Your task to perform on an android device: change the clock style Image 0: 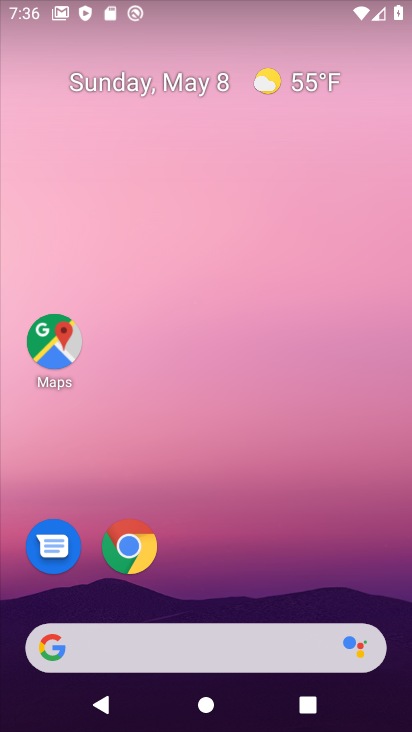
Step 0: drag from (263, 537) to (266, 35)
Your task to perform on an android device: change the clock style Image 1: 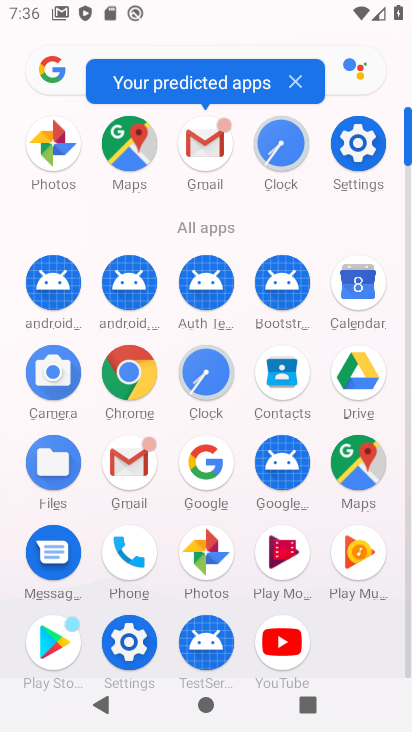
Step 1: click (277, 137)
Your task to perform on an android device: change the clock style Image 2: 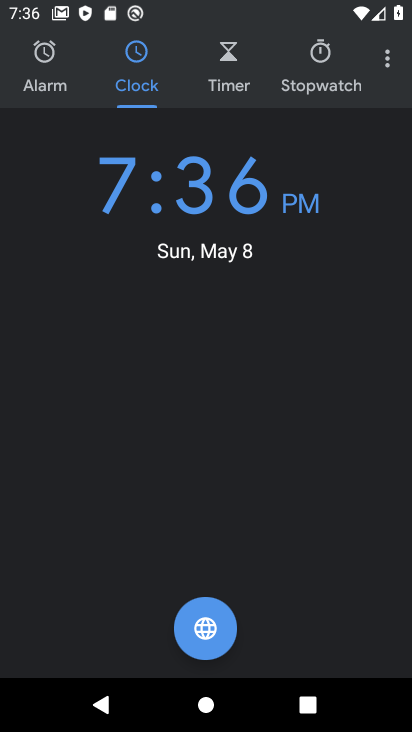
Step 2: click (385, 50)
Your task to perform on an android device: change the clock style Image 3: 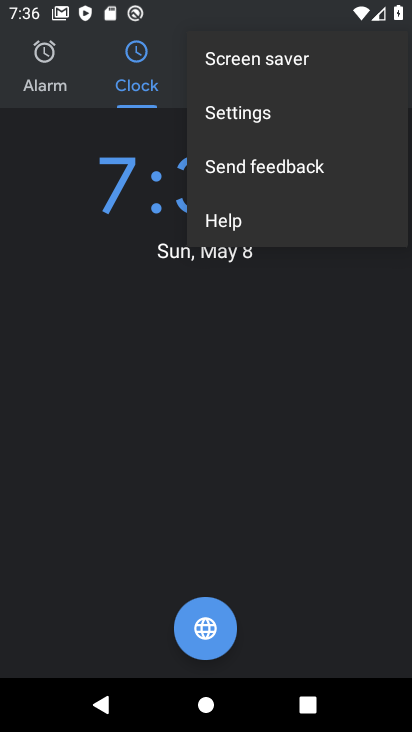
Step 3: click (318, 115)
Your task to perform on an android device: change the clock style Image 4: 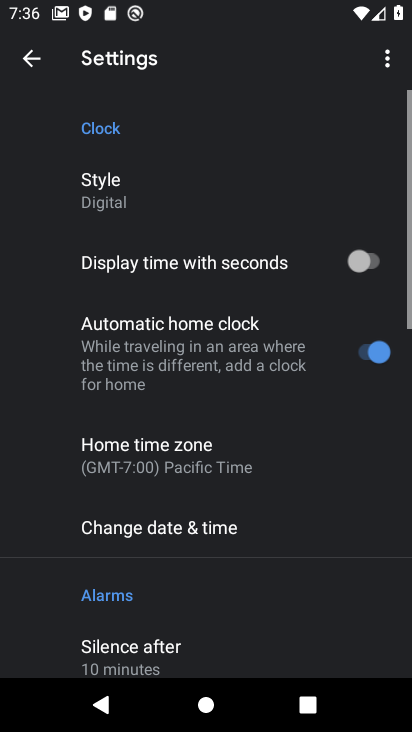
Step 4: click (166, 193)
Your task to perform on an android device: change the clock style Image 5: 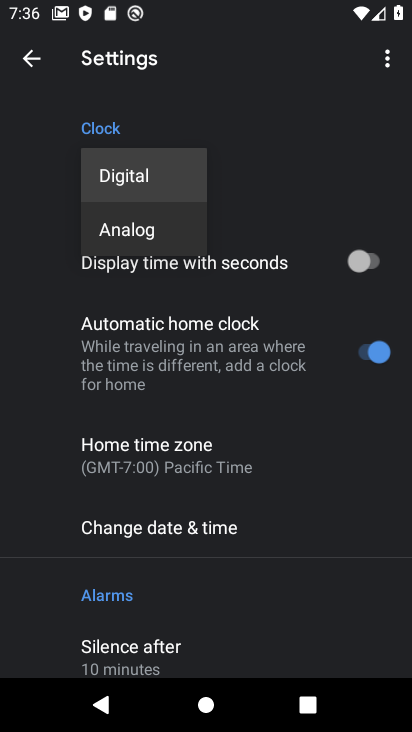
Step 5: click (132, 230)
Your task to perform on an android device: change the clock style Image 6: 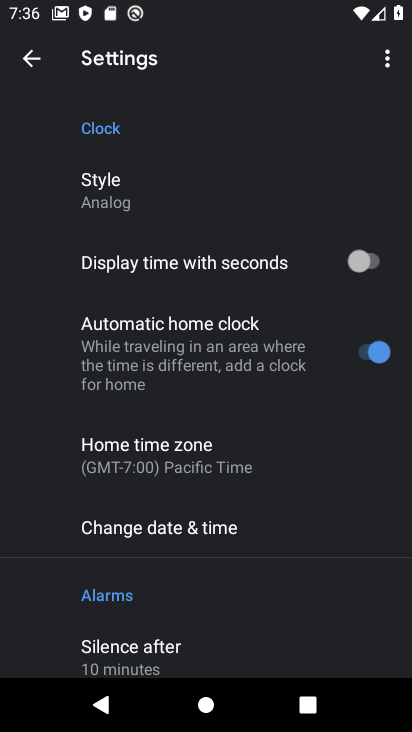
Step 6: click (30, 47)
Your task to perform on an android device: change the clock style Image 7: 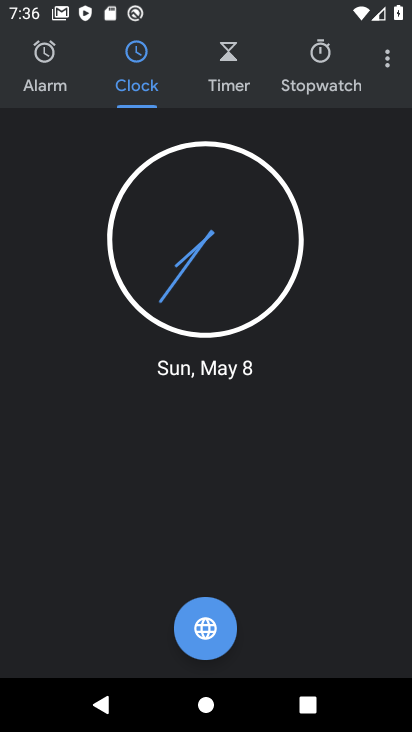
Step 7: task complete